Your task to perform on an android device: turn on airplane mode Image 0: 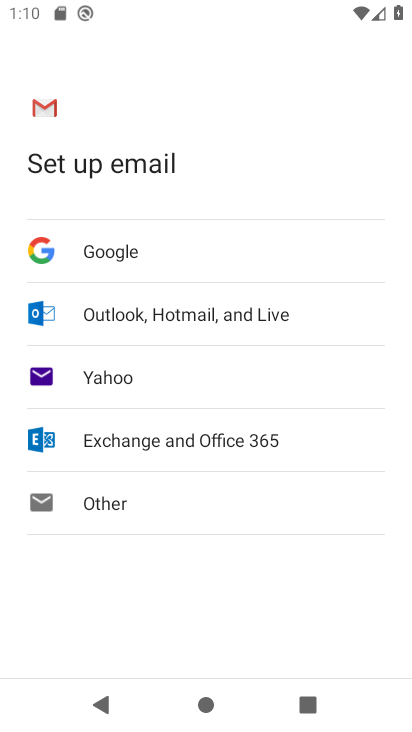
Step 0: press home button
Your task to perform on an android device: turn on airplane mode Image 1: 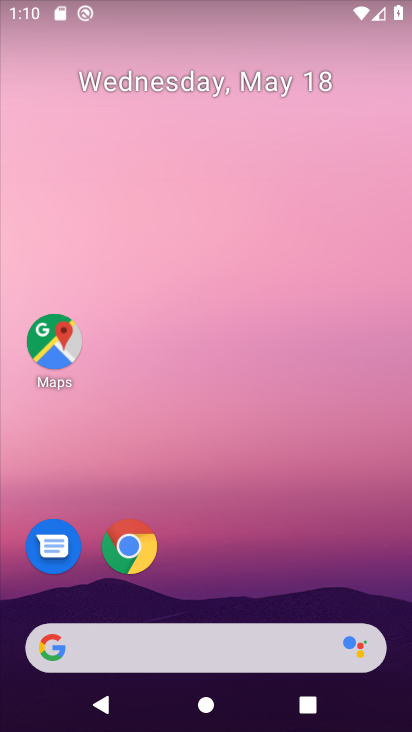
Step 1: drag from (233, 580) to (249, 166)
Your task to perform on an android device: turn on airplane mode Image 2: 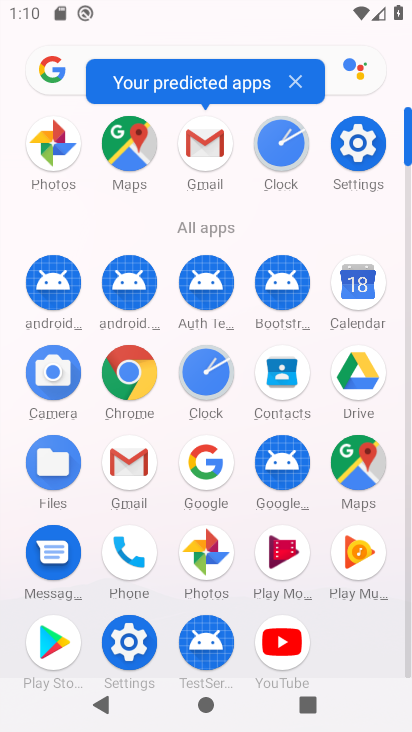
Step 2: click (347, 151)
Your task to perform on an android device: turn on airplane mode Image 3: 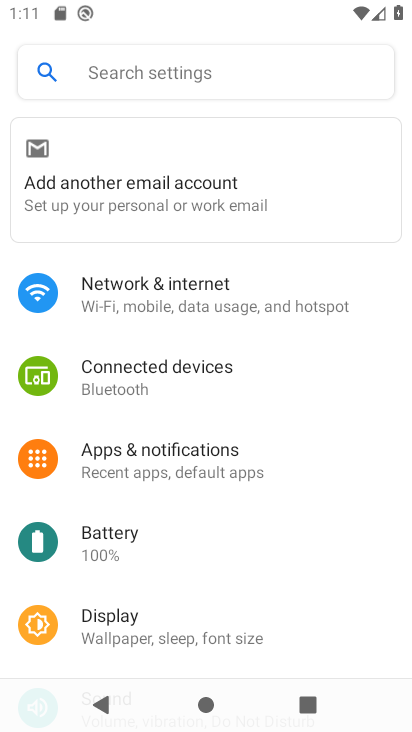
Step 3: click (204, 284)
Your task to perform on an android device: turn on airplane mode Image 4: 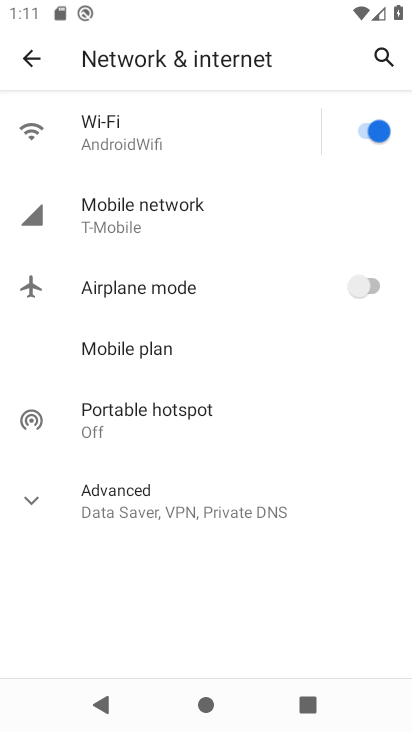
Step 4: click (373, 282)
Your task to perform on an android device: turn on airplane mode Image 5: 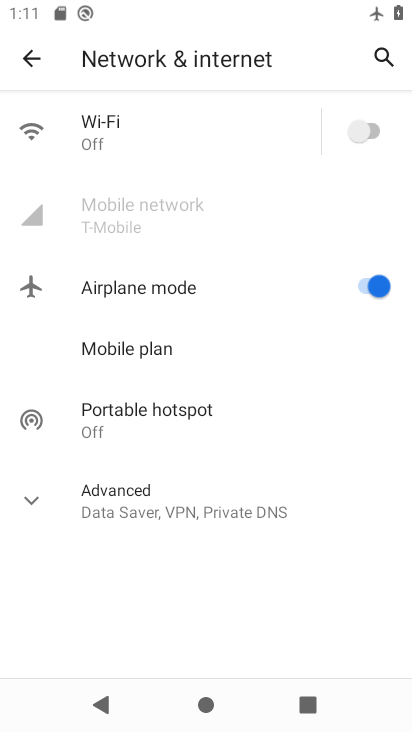
Step 5: task complete